Your task to perform on an android device: turn off translation in the chrome app Image 0: 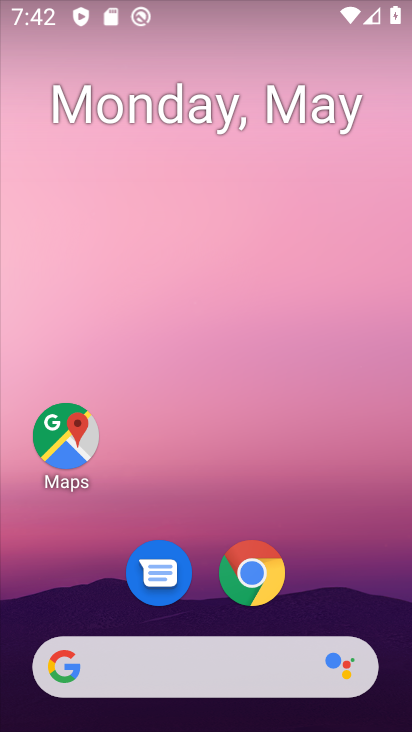
Step 0: click (262, 597)
Your task to perform on an android device: turn off translation in the chrome app Image 1: 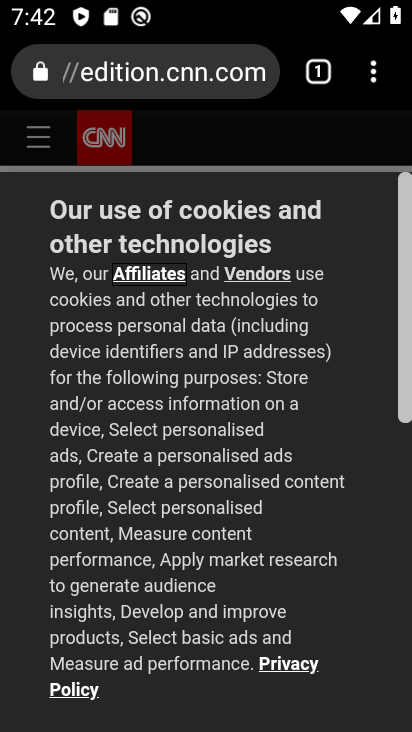
Step 1: click (369, 83)
Your task to perform on an android device: turn off translation in the chrome app Image 2: 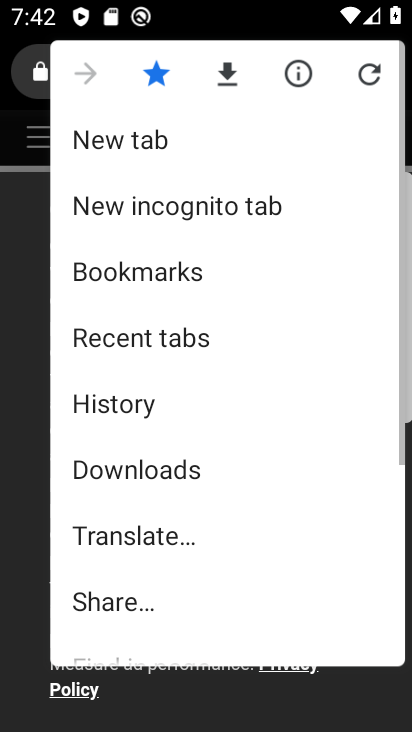
Step 2: drag from (138, 665) to (231, 191)
Your task to perform on an android device: turn off translation in the chrome app Image 3: 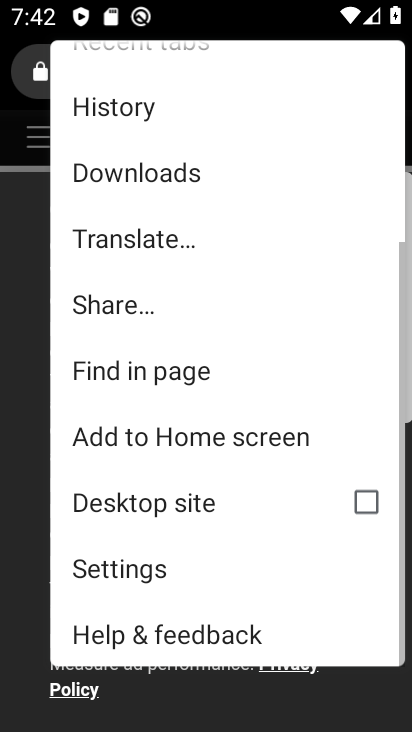
Step 3: click (209, 566)
Your task to perform on an android device: turn off translation in the chrome app Image 4: 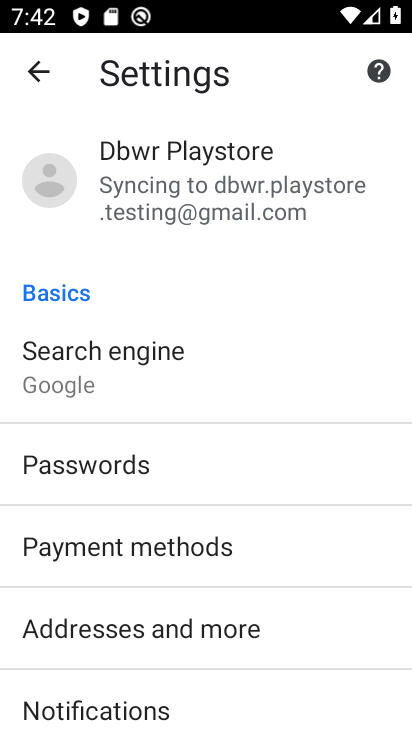
Step 4: drag from (217, 681) to (236, 312)
Your task to perform on an android device: turn off translation in the chrome app Image 5: 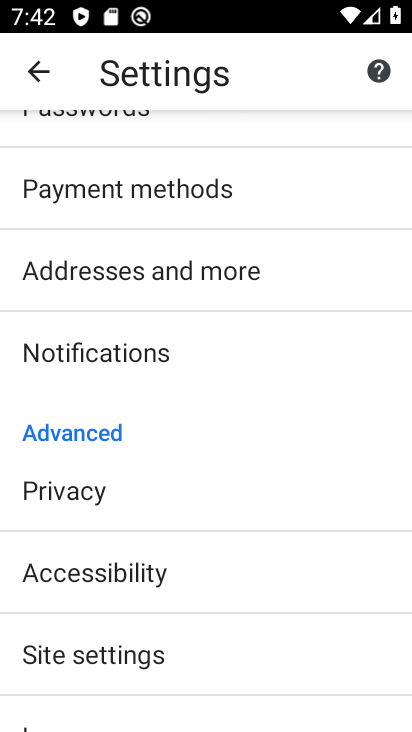
Step 5: drag from (186, 579) to (232, 428)
Your task to perform on an android device: turn off translation in the chrome app Image 6: 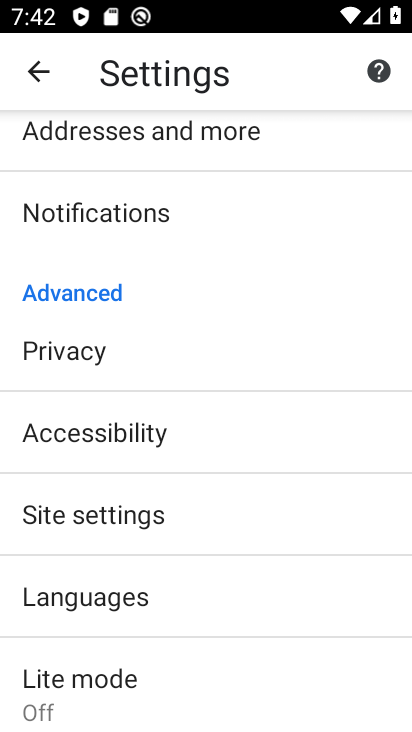
Step 6: click (148, 624)
Your task to perform on an android device: turn off translation in the chrome app Image 7: 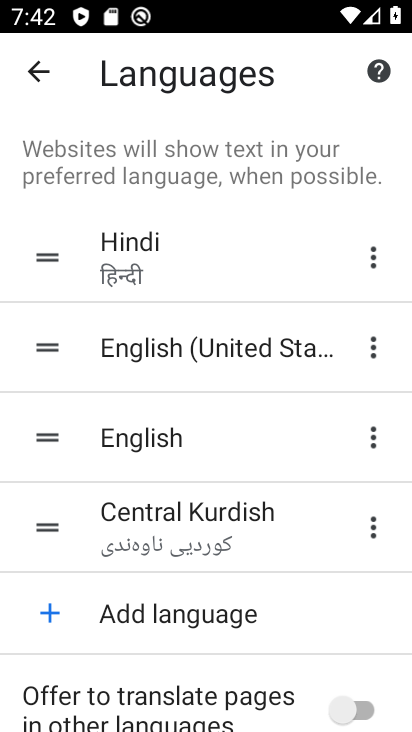
Step 7: click (363, 729)
Your task to perform on an android device: turn off translation in the chrome app Image 8: 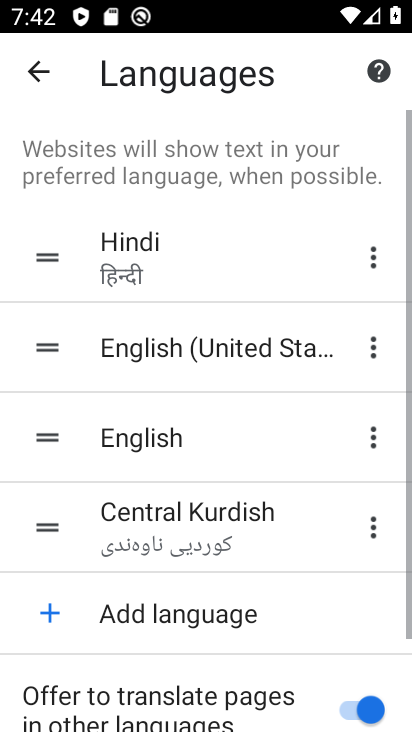
Step 8: click (363, 728)
Your task to perform on an android device: turn off translation in the chrome app Image 9: 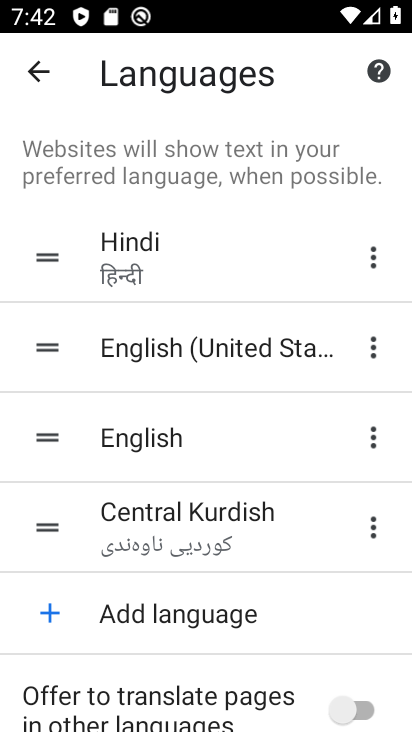
Step 9: task complete